Your task to perform on an android device: turn on data saver in the chrome app Image 0: 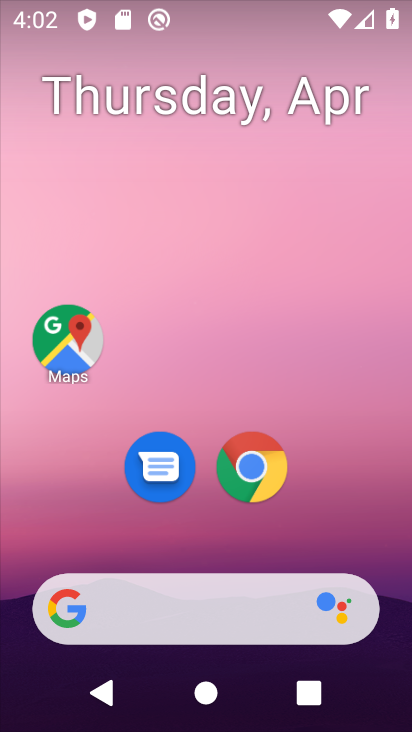
Step 0: click (260, 462)
Your task to perform on an android device: turn on data saver in the chrome app Image 1: 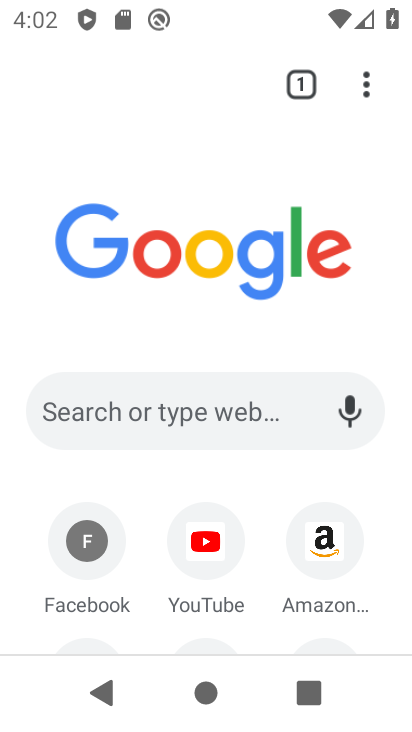
Step 1: click (365, 91)
Your task to perform on an android device: turn on data saver in the chrome app Image 2: 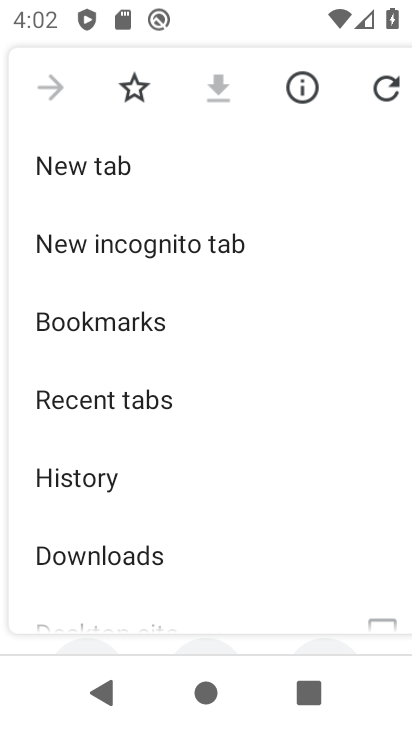
Step 2: drag from (218, 562) to (335, 13)
Your task to perform on an android device: turn on data saver in the chrome app Image 3: 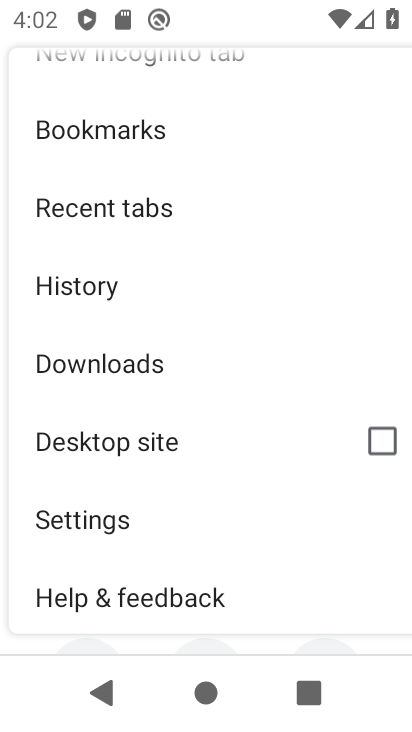
Step 3: click (95, 517)
Your task to perform on an android device: turn on data saver in the chrome app Image 4: 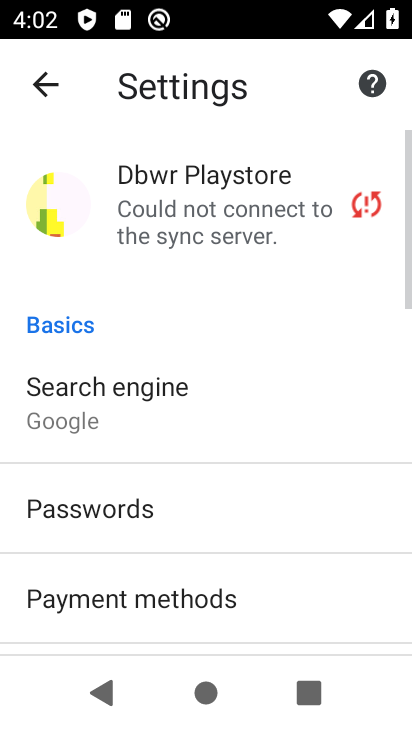
Step 4: drag from (197, 498) to (294, 25)
Your task to perform on an android device: turn on data saver in the chrome app Image 5: 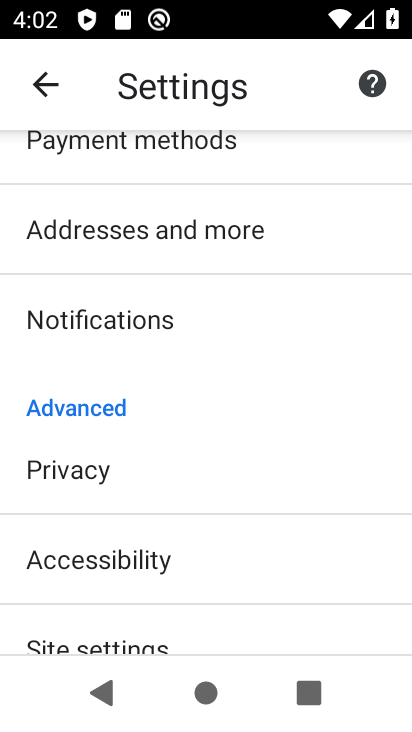
Step 5: drag from (172, 422) to (215, 0)
Your task to perform on an android device: turn on data saver in the chrome app Image 6: 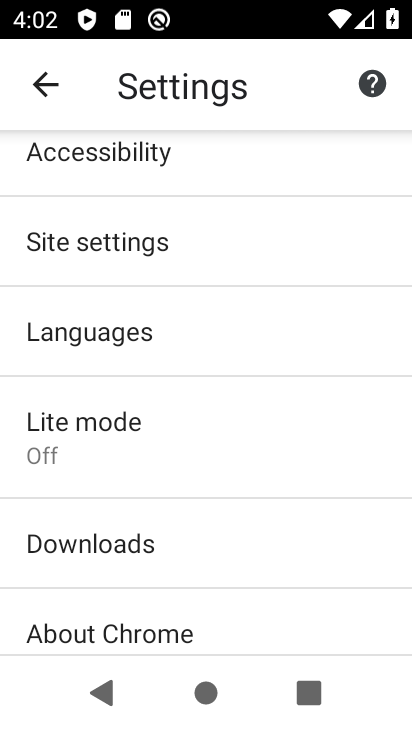
Step 6: click (92, 464)
Your task to perform on an android device: turn on data saver in the chrome app Image 7: 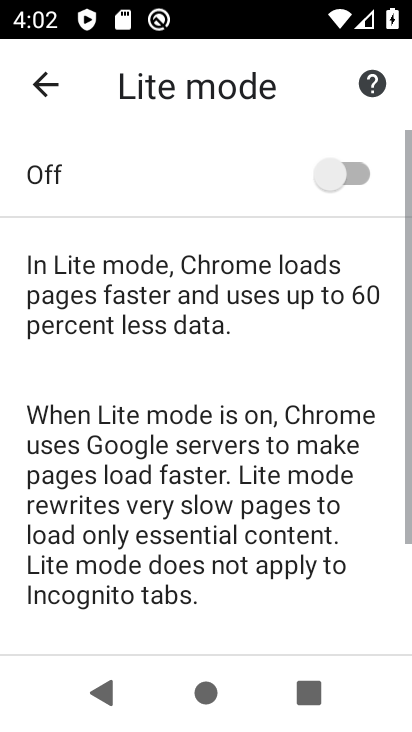
Step 7: click (360, 167)
Your task to perform on an android device: turn on data saver in the chrome app Image 8: 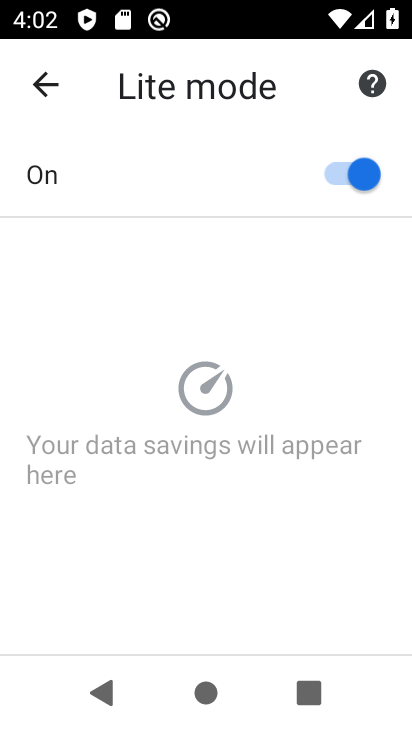
Step 8: task complete